Your task to perform on an android device: snooze an email in the gmail app Image 0: 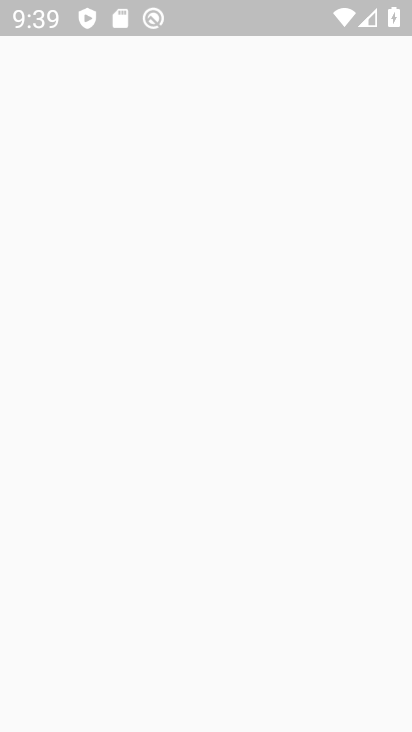
Step 0: press home button
Your task to perform on an android device: snooze an email in the gmail app Image 1: 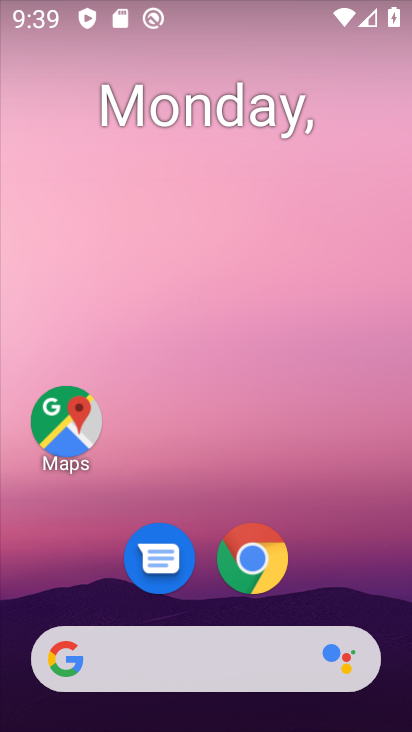
Step 1: drag from (373, 494) to (387, 137)
Your task to perform on an android device: snooze an email in the gmail app Image 2: 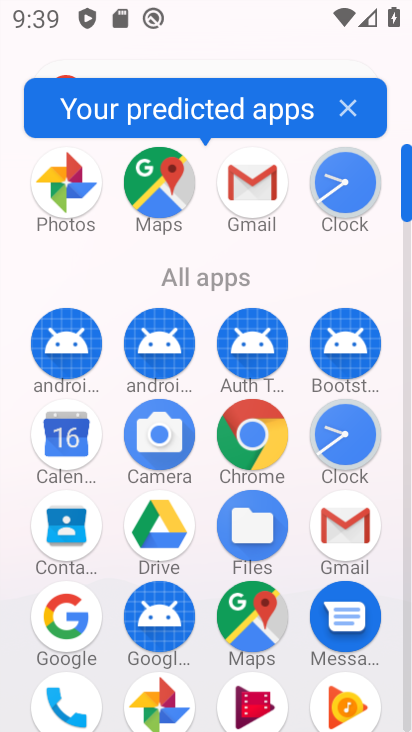
Step 2: click (375, 534)
Your task to perform on an android device: snooze an email in the gmail app Image 3: 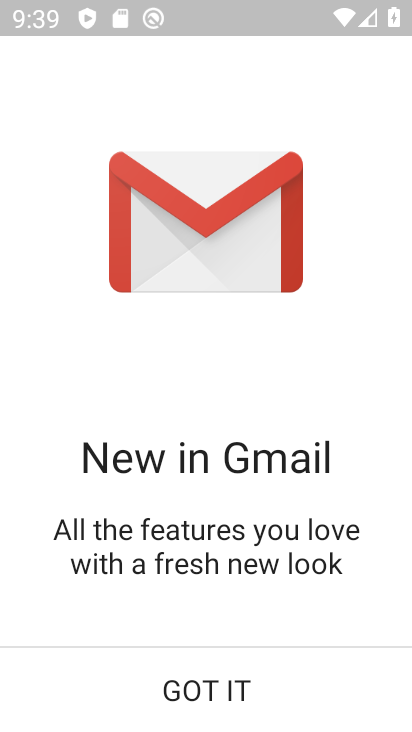
Step 3: click (293, 708)
Your task to perform on an android device: snooze an email in the gmail app Image 4: 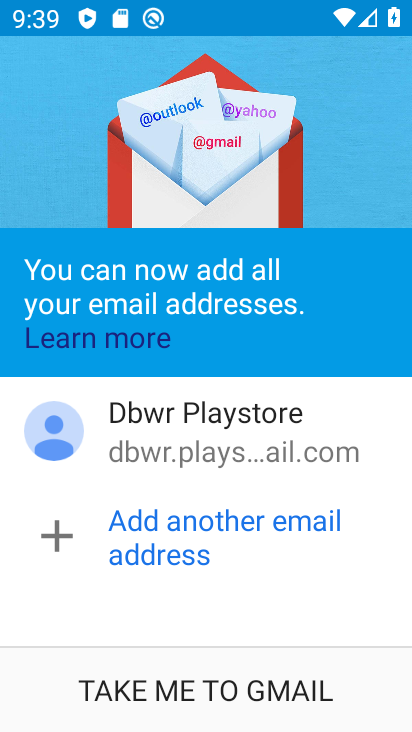
Step 4: click (281, 695)
Your task to perform on an android device: snooze an email in the gmail app Image 5: 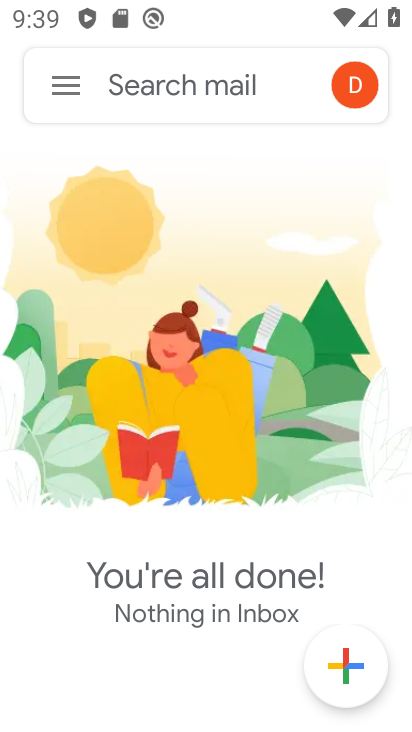
Step 5: click (63, 78)
Your task to perform on an android device: snooze an email in the gmail app Image 6: 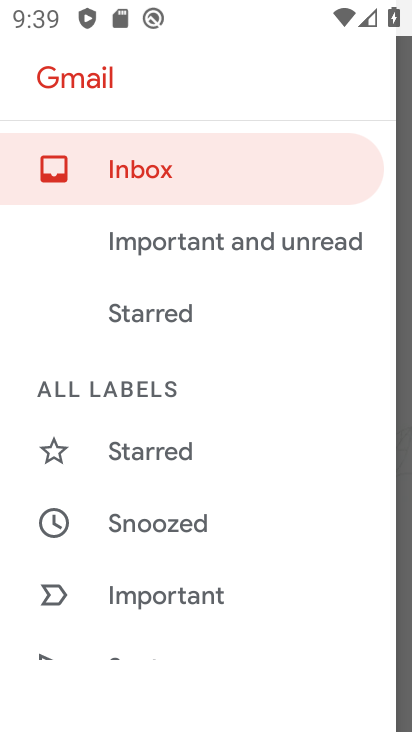
Step 6: drag from (289, 546) to (317, 386)
Your task to perform on an android device: snooze an email in the gmail app Image 7: 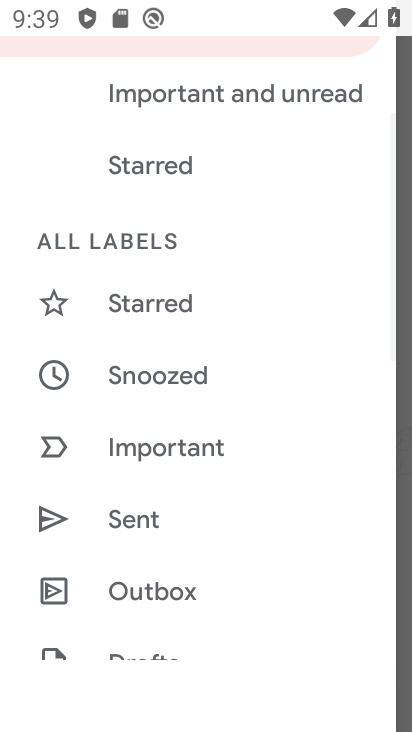
Step 7: drag from (315, 524) to (307, 395)
Your task to perform on an android device: snooze an email in the gmail app Image 8: 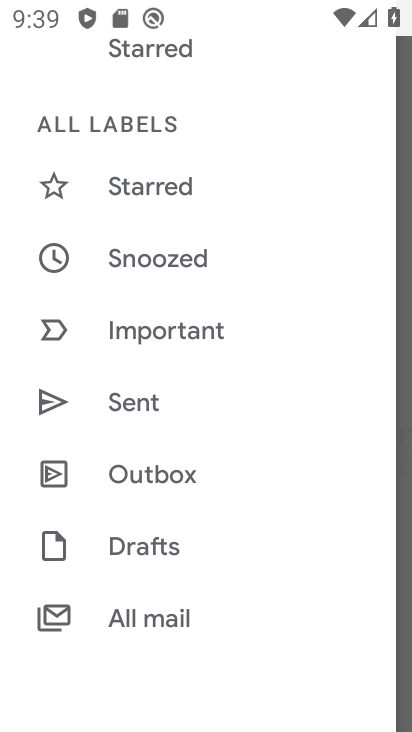
Step 8: drag from (293, 497) to (315, 360)
Your task to perform on an android device: snooze an email in the gmail app Image 9: 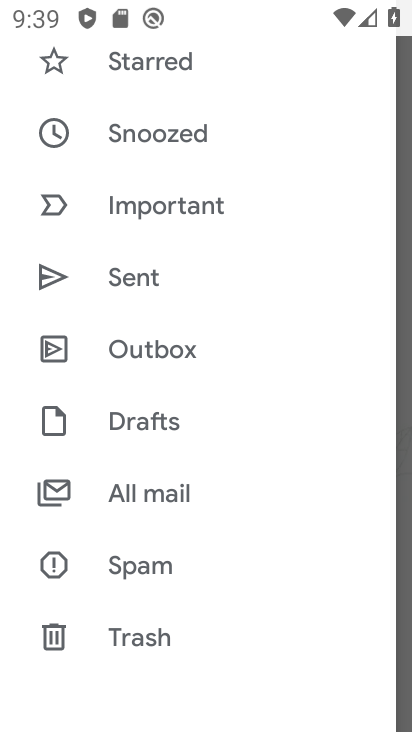
Step 9: drag from (282, 535) to (301, 394)
Your task to perform on an android device: snooze an email in the gmail app Image 10: 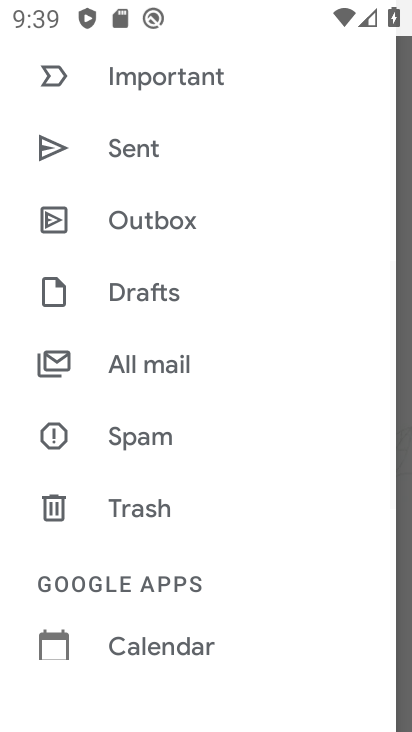
Step 10: drag from (261, 525) to (292, 393)
Your task to perform on an android device: snooze an email in the gmail app Image 11: 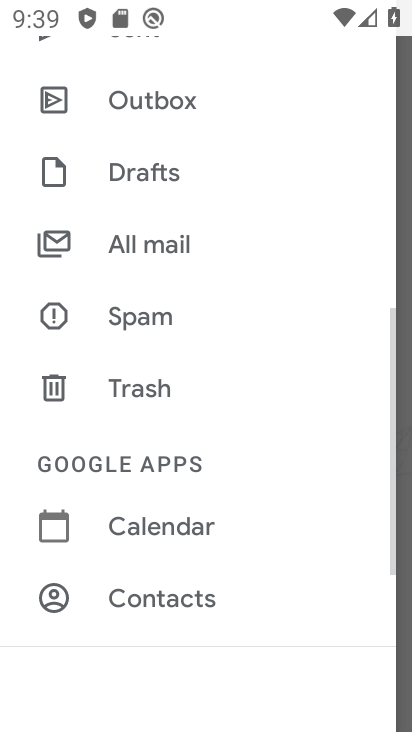
Step 11: drag from (289, 571) to (310, 388)
Your task to perform on an android device: snooze an email in the gmail app Image 12: 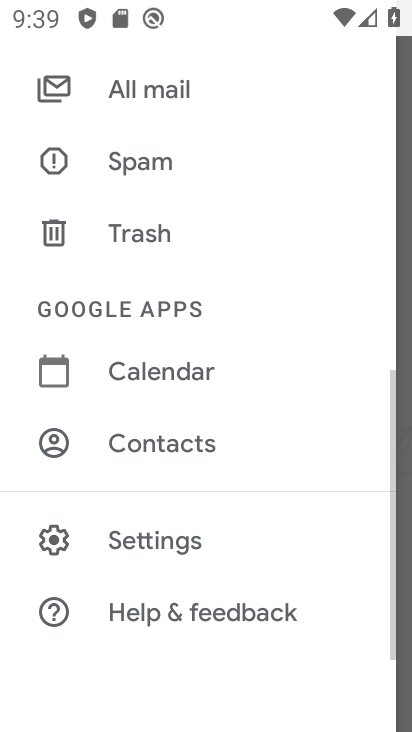
Step 12: drag from (296, 592) to (310, 361)
Your task to perform on an android device: snooze an email in the gmail app Image 13: 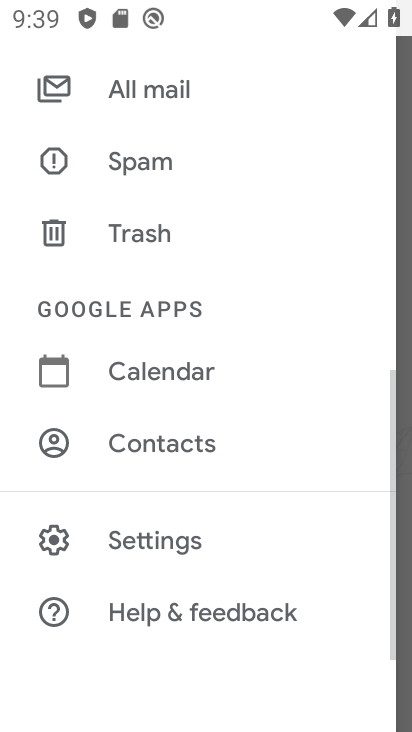
Step 13: drag from (312, 320) to (315, 562)
Your task to perform on an android device: snooze an email in the gmail app Image 14: 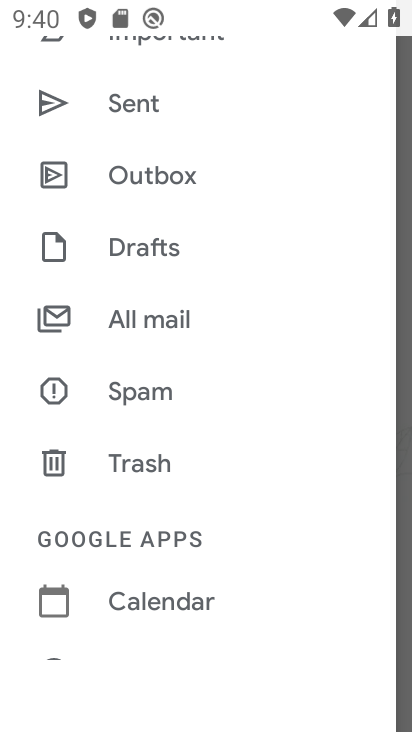
Step 14: drag from (302, 395) to (302, 501)
Your task to perform on an android device: snooze an email in the gmail app Image 15: 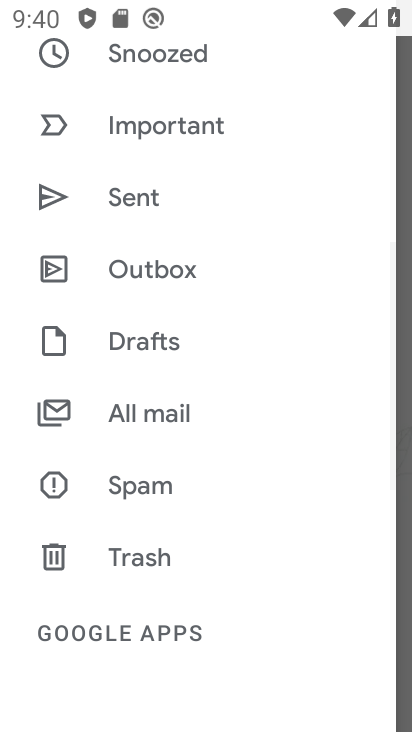
Step 15: drag from (285, 384) to (280, 496)
Your task to perform on an android device: snooze an email in the gmail app Image 16: 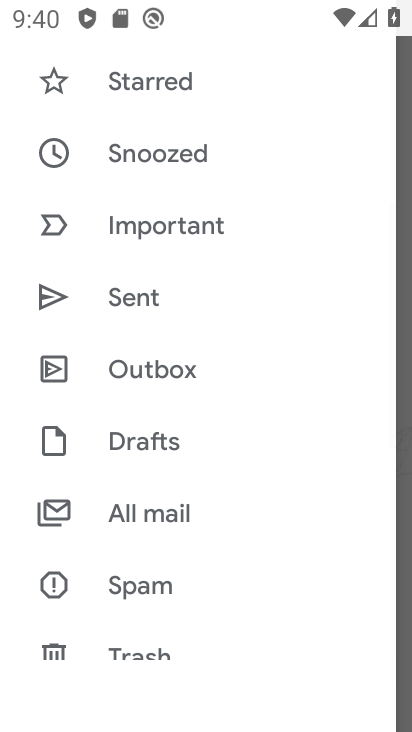
Step 16: drag from (290, 353) to (293, 472)
Your task to perform on an android device: snooze an email in the gmail app Image 17: 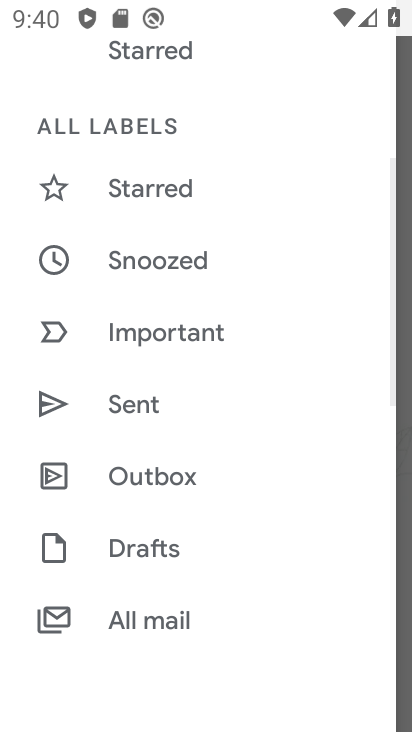
Step 17: drag from (289, 305) to (287, 474)
Your task to perform on an android device: snooze an email in the gmail app Image 18: 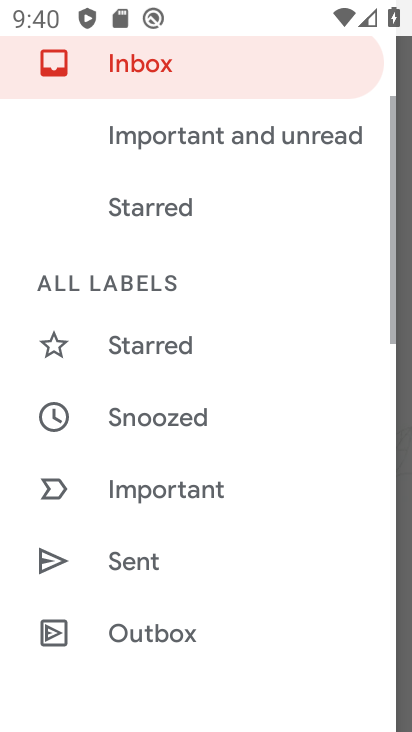
Step 18: drag from (285, 334) to (284, 476)
Your task to perform on an android device: snooze an email in the gmail app Image 19: 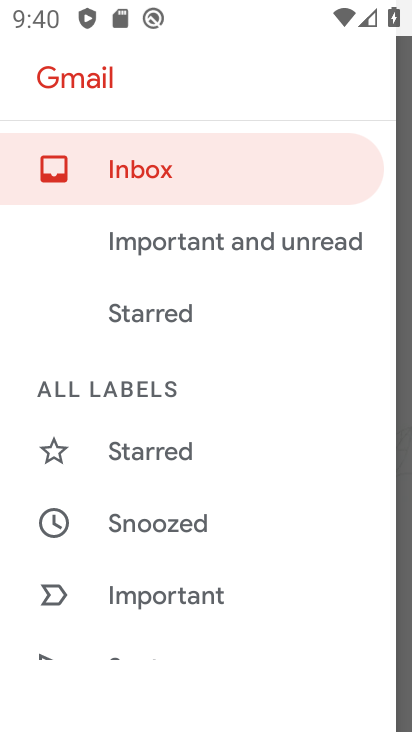
Step 19: drag from (279, 291) to (276, 445)
Your task to perform on an android device: snooze an email in the gmail app Image 20: 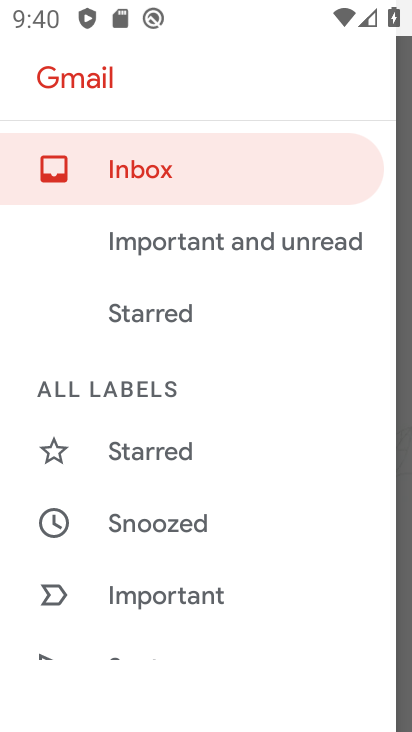
Step 20: drag from (288, 319) to (280, 507)
Your task to perform on an android device: snooze an email in the gmail app Image 21: 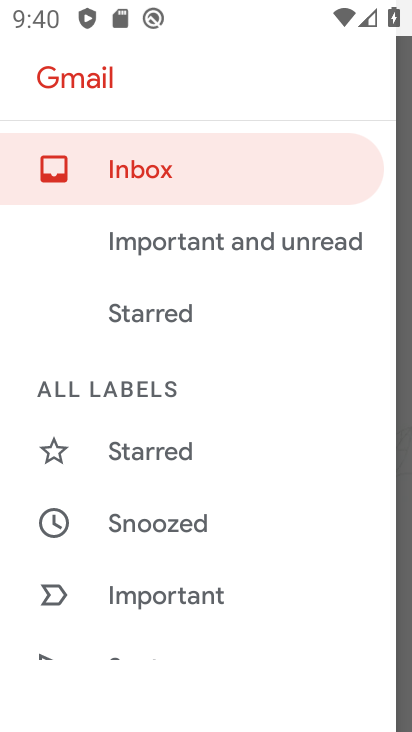
Step 21: click (197, 522)
Your task to perform on an android device: snooze an email in the gmail app Image 22: 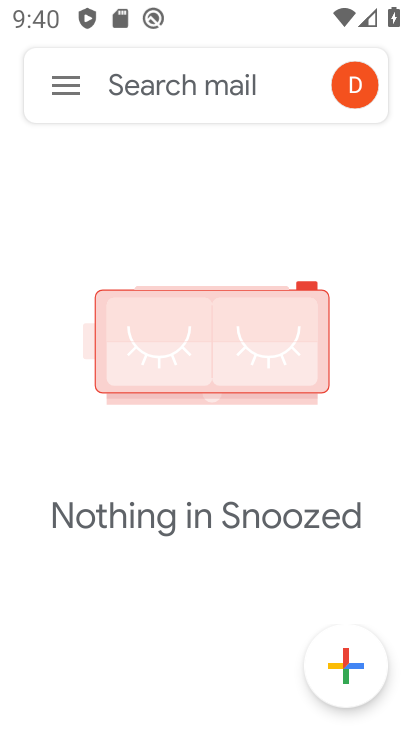
Step 22: task complete